Your task to perform on an android device: Go to eBay Image 0: 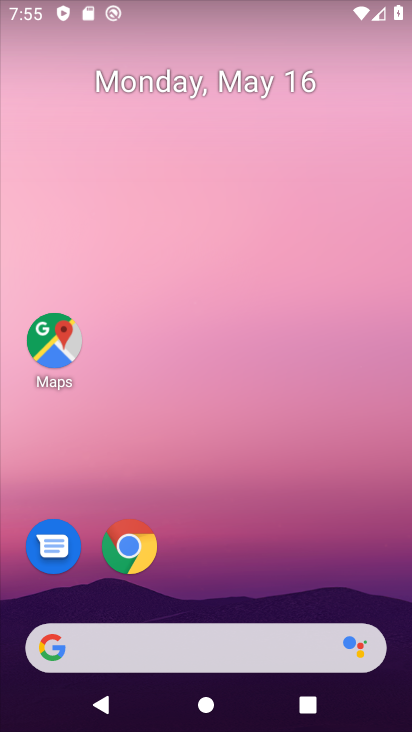
Step 0: click (127, 534)
Your task to perform on an android device: Go to eBay Image 1: 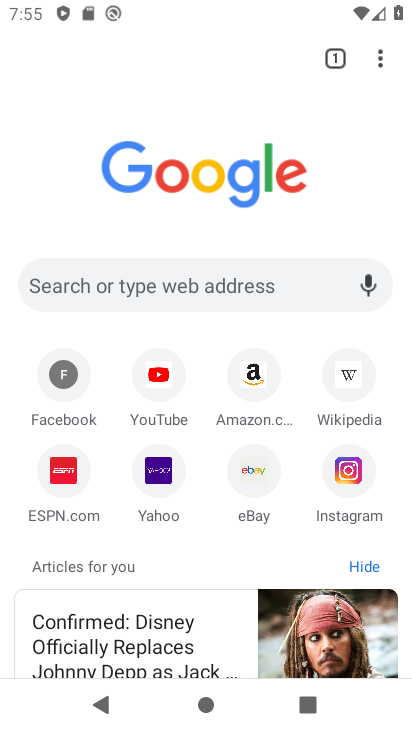
Step 1: click (256, 487)
Your task to perform on an android device: Go to eBay Image 2: 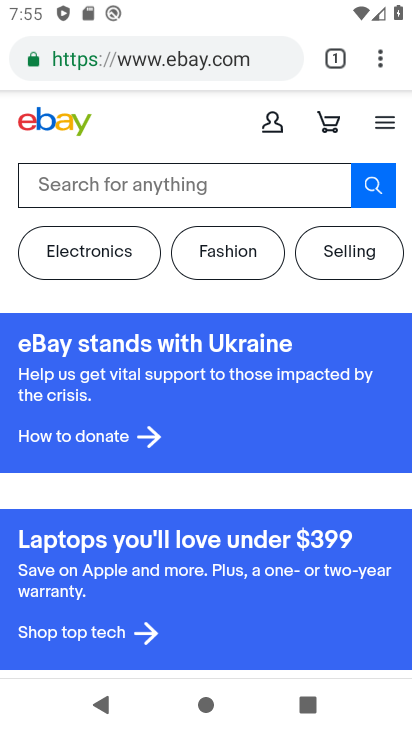
Step 2: task complete